Your task to perform on an android device: stop showing notifications on the lock screen Image 0: 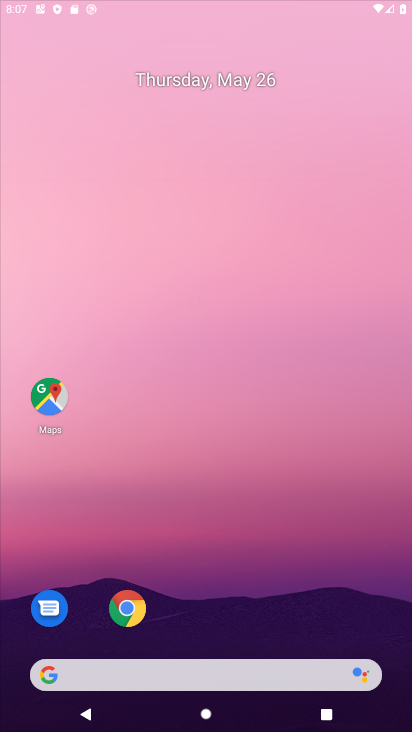
Step 0: click (156, 699)
Your task to perform on an android device: stop showing notifications on the lock screen Image 1: 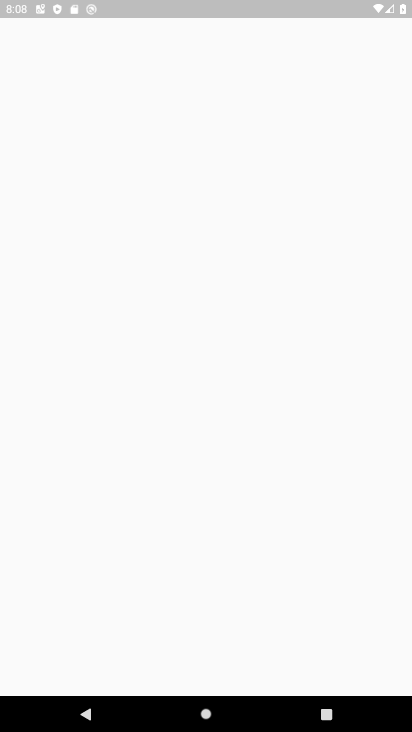
Step 1: press home button
Your task to perform on an android device: stop showing notifications on the lock screen Image 2: 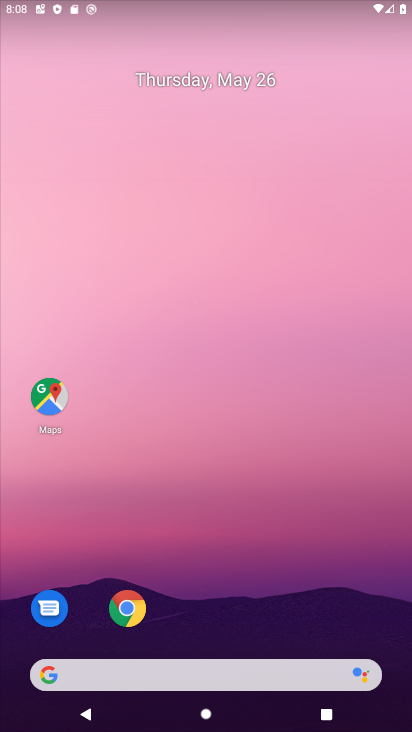
Step 2: drag from (152, 729) to (217, 76)
Your task to perform on an android device: stop showing notifications on the lock screen Image 3: 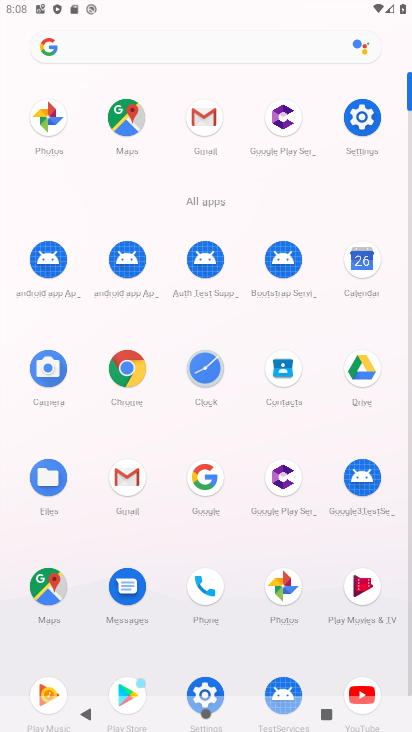
Step 3: click (364, 124)
Your task to perform on an android device: stop showing notifications on the lock screen Image 4: 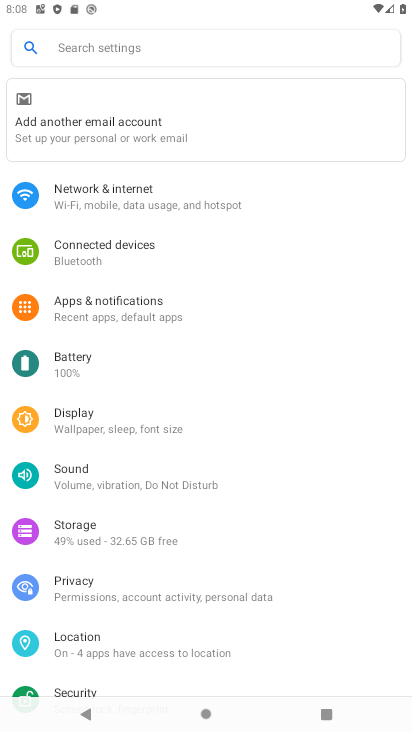
Step 4: click (124, 302)
Your task to perform on an android device: stop showing notifications on the lock screen Image 5: 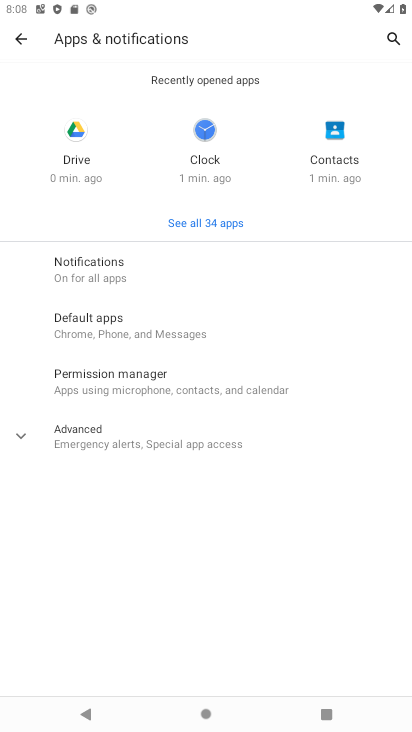
Step 5: click (134, 277)
Your task to perform on an android device: stop showing notifications on the lock screen Image 6: 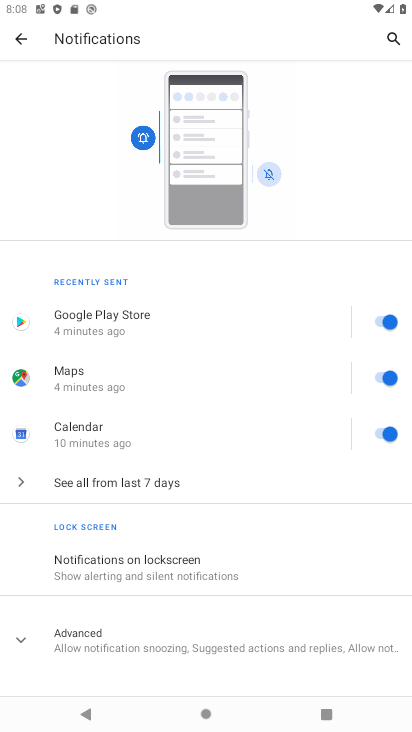
Step 6: click (152, 566)
Your task to perform on an android device: stop showing notifications on the lock screen Image 7: 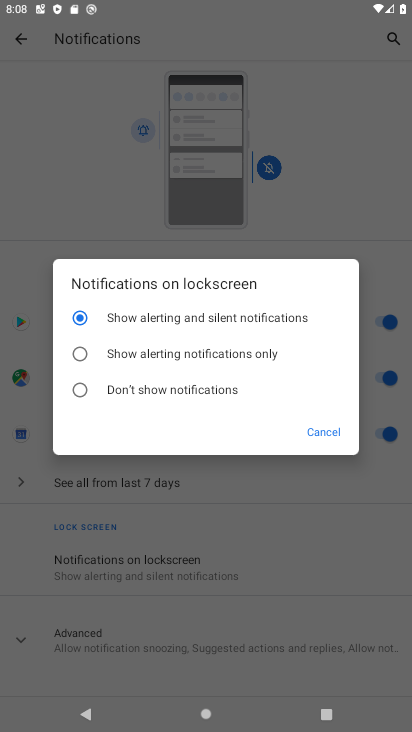
Step 7: click (161, 358)
Your task to perform on an android device: stop showing notifications on the lock screen Image 8: 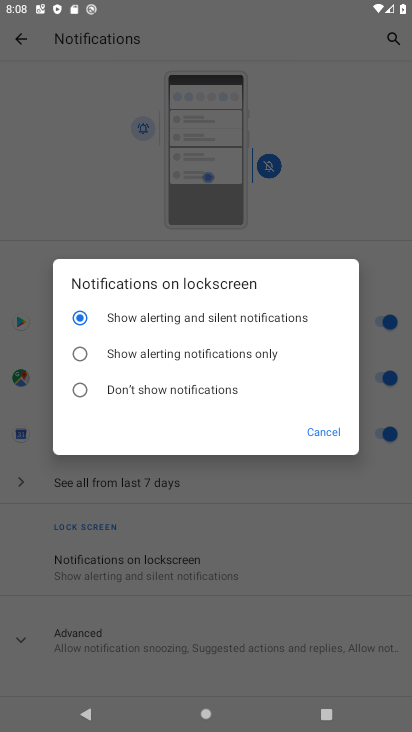
Step 8: click (160, 390)
Your task to perform on an android device: stop showing notifications on the lock screen Image 9: 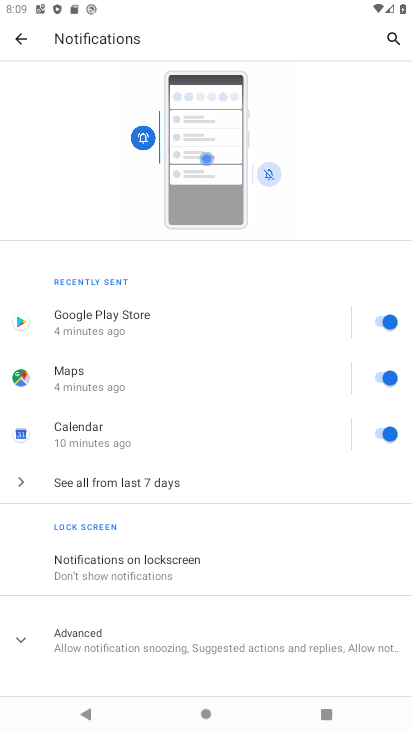
Step 9: task complete